Your task to perform on an android device: add a label to a message in the gmail app Image 0: 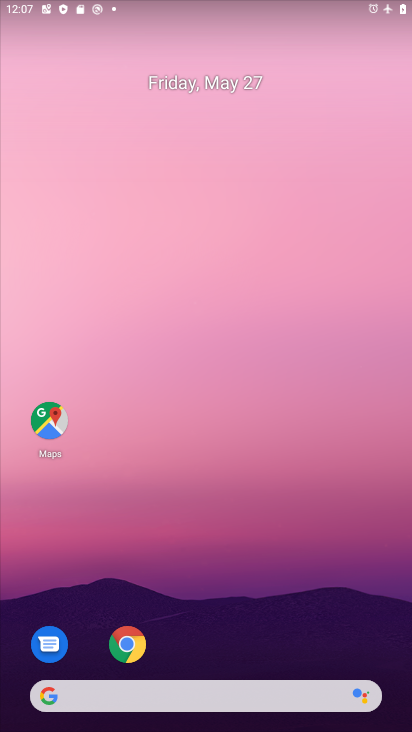
Step 0: drag from (221, 641) to (223, 109)
Your task to perform on an android device: add a label to a message in the gmail app Image 1: 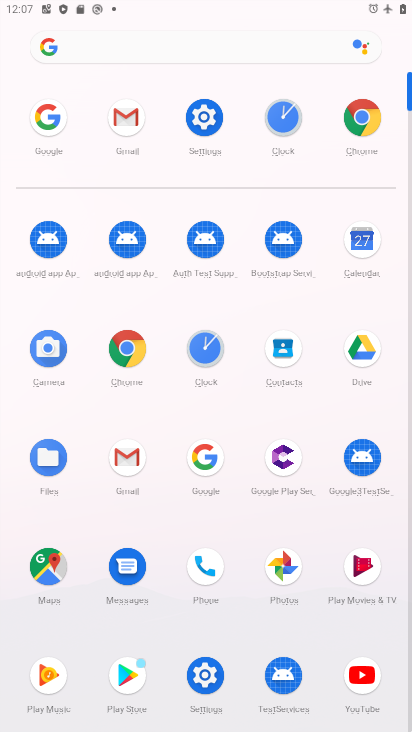
Step 1: click (122, 466)
Your task to perform on an android device: add a label to a message in the gmail app Image 2: 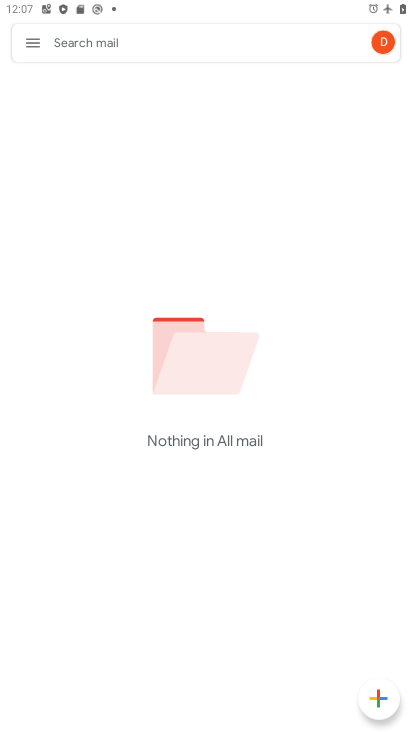
Step 2: click (19, 38)
Your task to perform on an android device: add a label to a message in the gmail app Image 3: 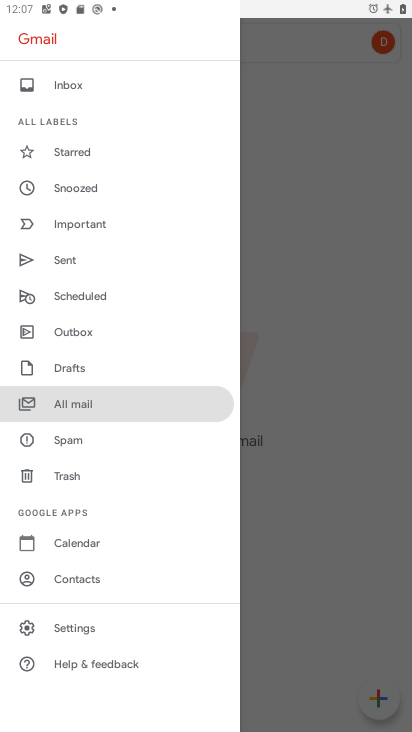
Step 3: click (101, 400)
Your task to perform on an android device: add a label to a message in the gmail app Image 4: 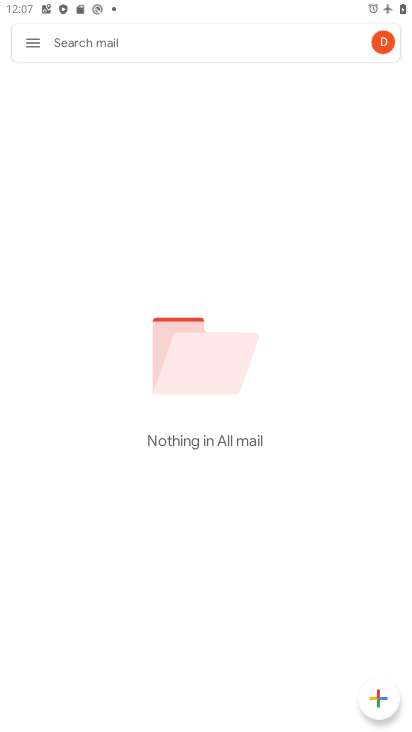
Step 4: task complete